Your task to perform on an android device: Open settings on Google Maps Image 0: 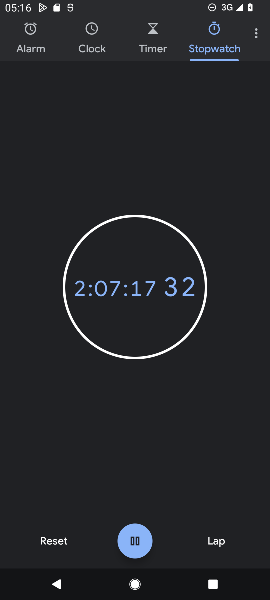
Step 0: press home button
Your task to perform on an android device: Open settings on Google Maps Image 1: 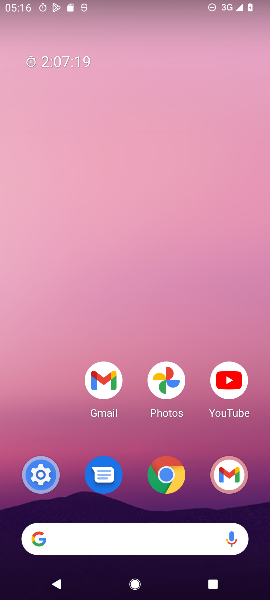
Step 1: drag from (56, 443) to (47, 226)
Your task to perform on an android device: Open settings on Google Maps Image 2: 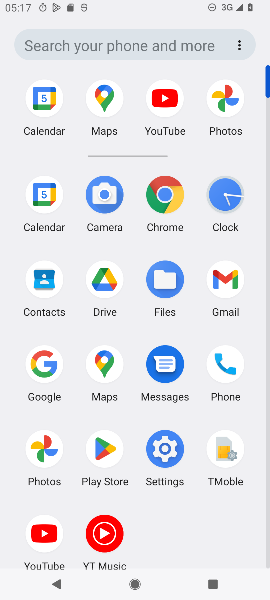
Step 2: click (98, 369)
Your task to perform on an android device: Open settings on Google Maps Image 3: 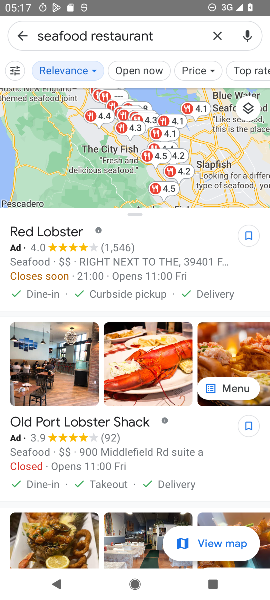
Step 3: press back button
Your task to perform on an android device: Open settings on Google Maps Image 4: 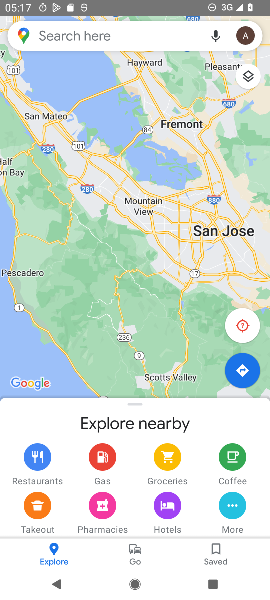
Step 4: click (243, 31)
Your task to perform on an android device: Open settings on Google Maps Image 5: 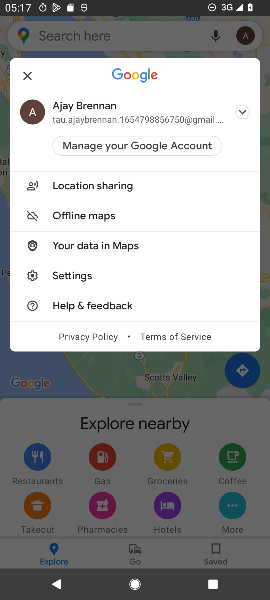
Step 5: click (83, 275)
Your task to perform on an android device: Open settings on Google Maps Image 6: 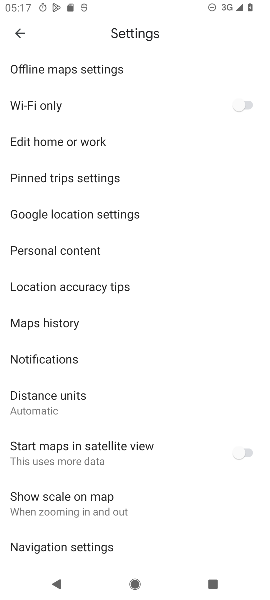
Step 6: task complete